Your task to perform on an android device: Open settings Image 0: 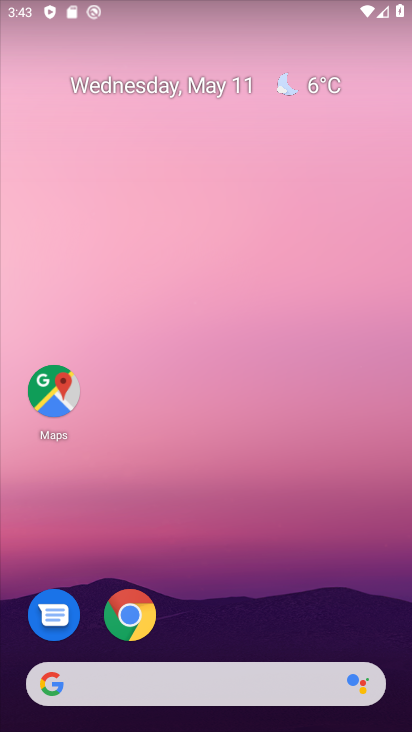
Step 0: drag from (289, 592) to (222, 285)
Your task to perform on an android device: Open settings Image 1: 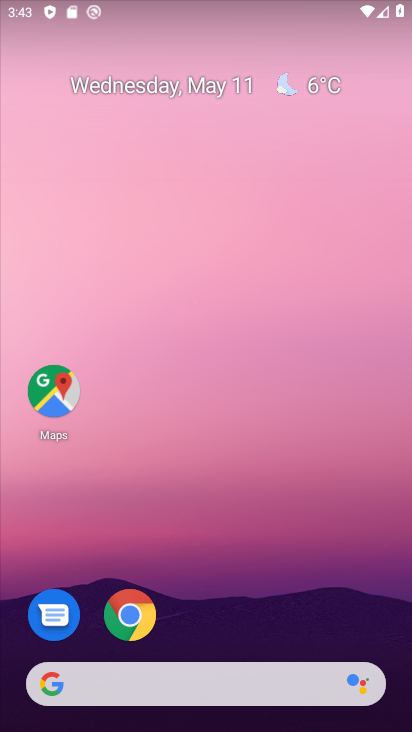
Step 1: drag from (270, 616) to (169, 99)
Your task to perform on an android device: Open settings Image 2: 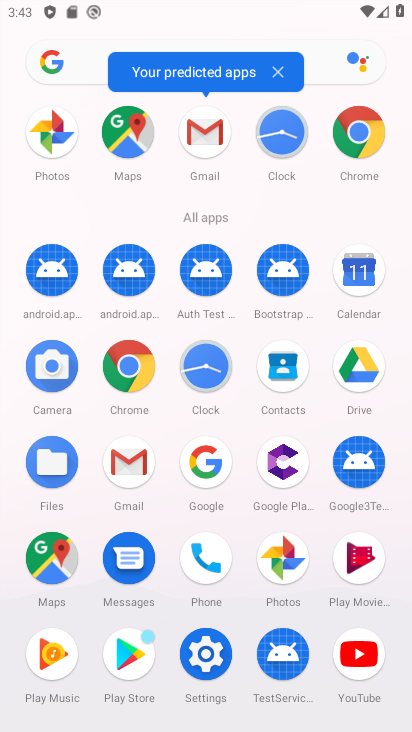
Step 2: click (207, 655)
Your task to perform on an android device: Open settings Image 3: 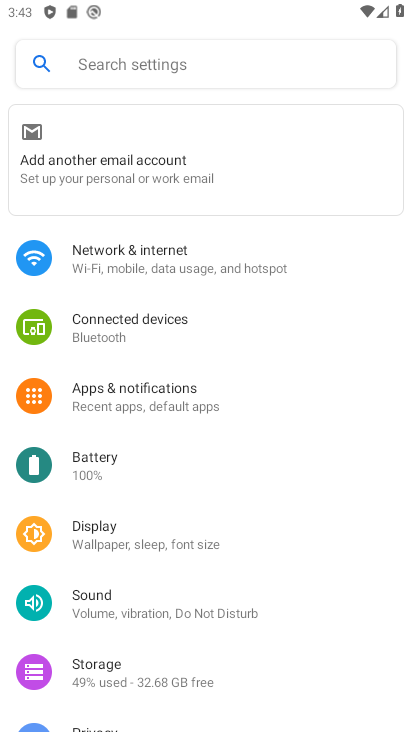
Step 3: task complete